Your task to perform on an android device: change the clock display to digital Image 0: 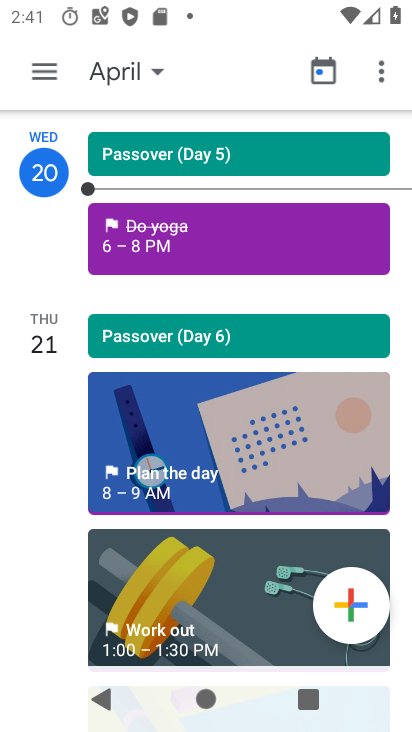
Step 0: press home button
Your task to perform on an android device: change the clock display to digital Image 1: 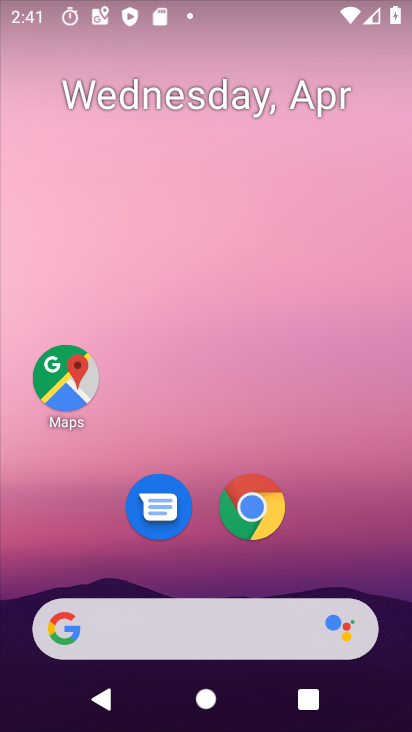
Step 1: drag from (335, 519) to (66, 98)
Your task to perform on an android device: change the clock display to digital Image 2: 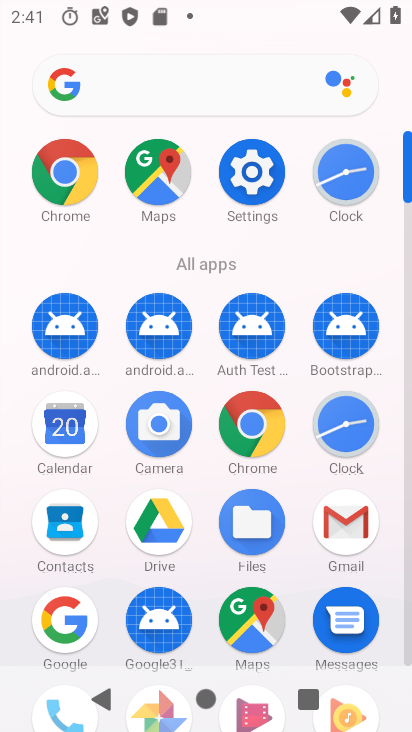
Step 2: click (347, 170)
Your task to perform on an android device: change the clock display to digital Image 3: 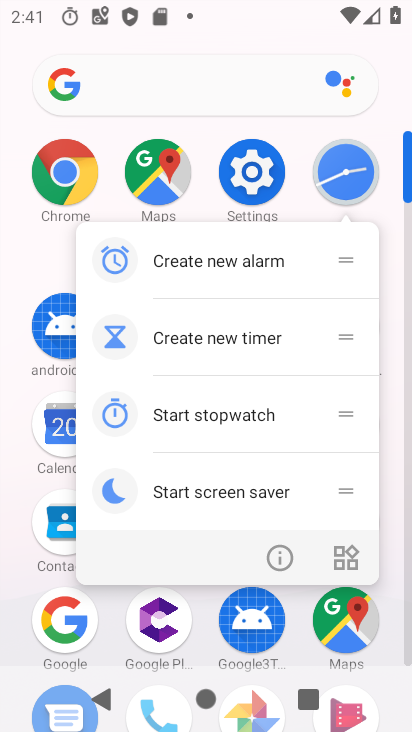
Step 3: click (334, 170)
Your task to perform on an android device: change the clock display to digital Image 4: 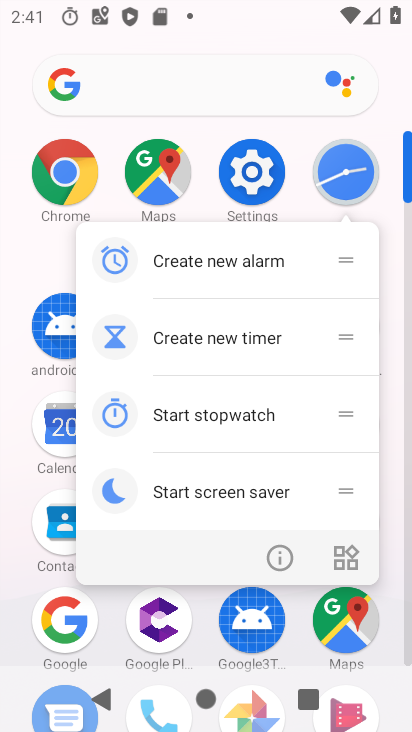
Step 4: click (334, 170)
Your task to perform on an android device: change the clock display to digital Image 5: 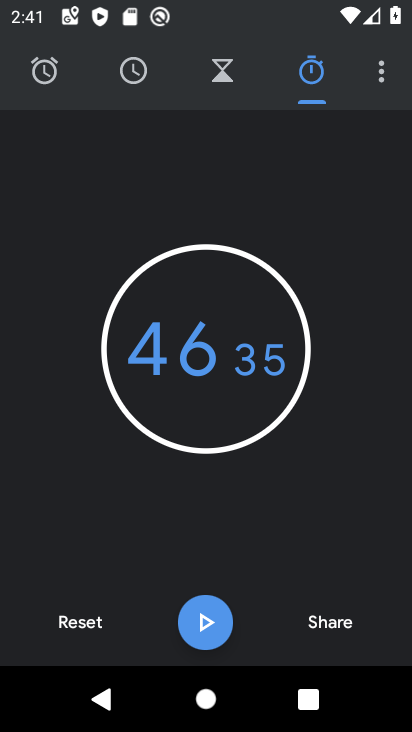
Step 5: click (383, 71)
Your task to perform on an android device: change the clock display to digital Image 6: 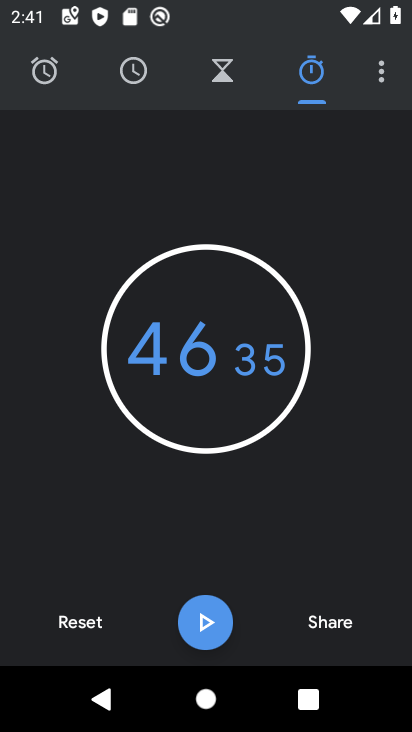
Step 6: drag from (380, 76) to (374, 110)
Your task to perform on an android device: change the clock display to digital Image 7: 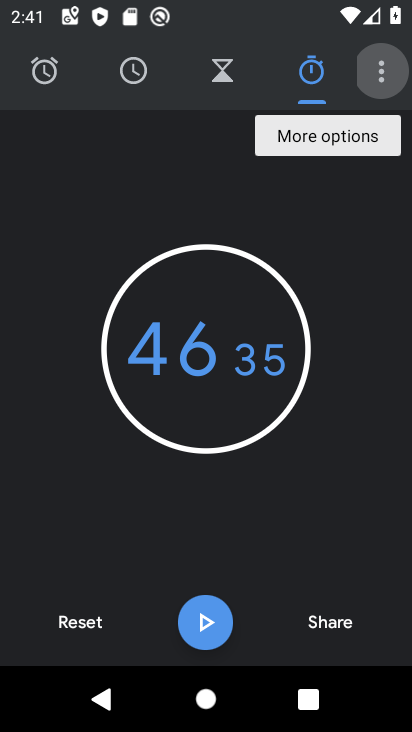
Step 7: click (360, 141)
Your task to perform on an android device: change the clock display to digital Image 8: 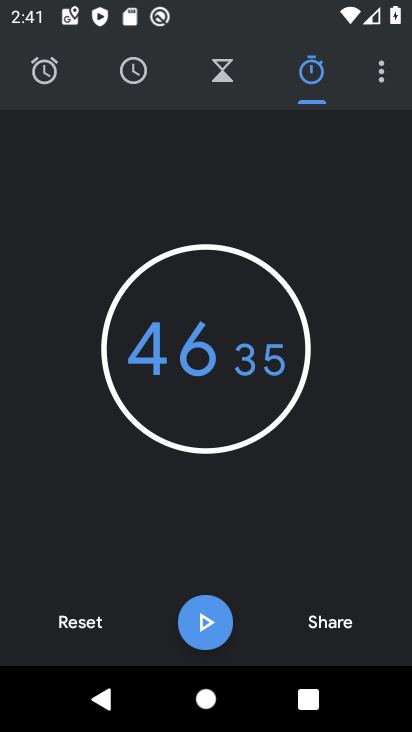
Step 8: click (382, 77)
Your task to perform on an android device: change the clock display to digital Image 9: 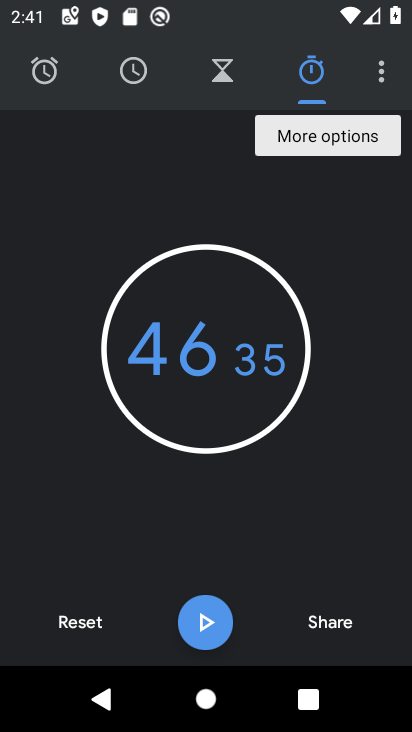
Step 9: click (382, 77)
Your task to perform on an android device: change the clock display to digital Image 10: 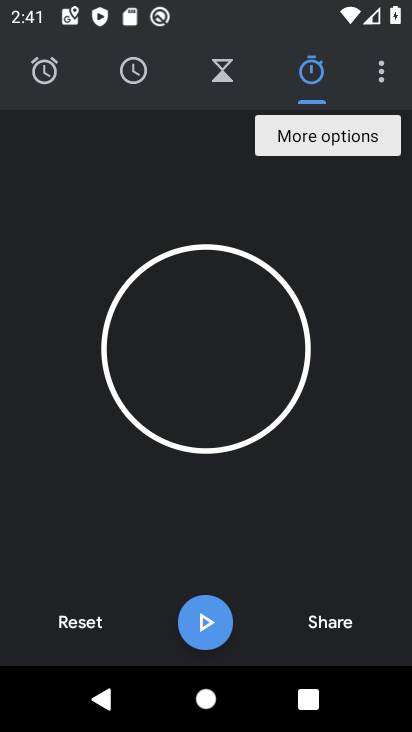
Step 10: click (361, 139)
Your task to perform on an android device: change the clock display to digital Image 11: 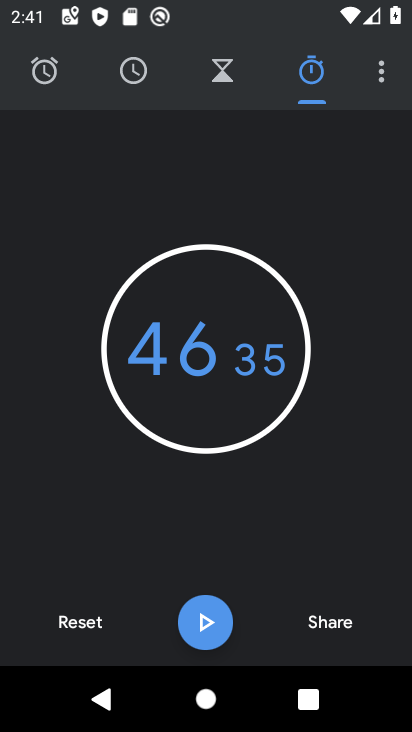
Step 11: click (386, 73)
Your task to perform on an android device: change the clock display to digital Image 12: 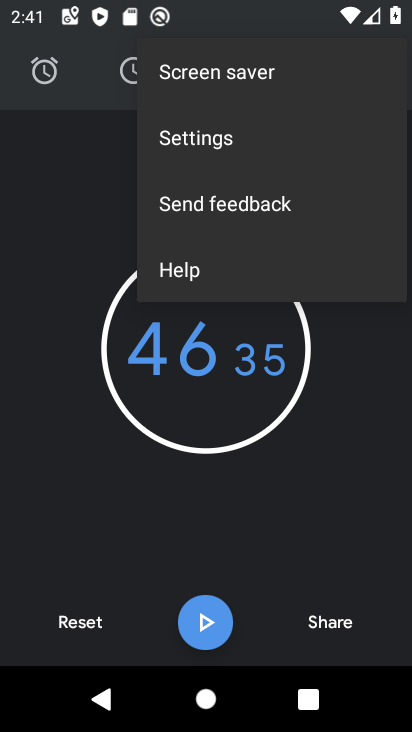
Step 12: click (239, 149)
Your task to perform on an android device: change the clock display to digital Image 13: 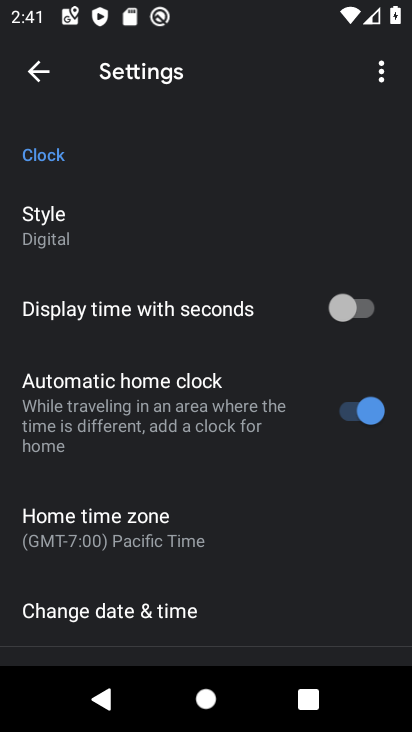
Step 13: click (45, 246)
Your task to perform on an android device: change the clock display to digital Image 14: 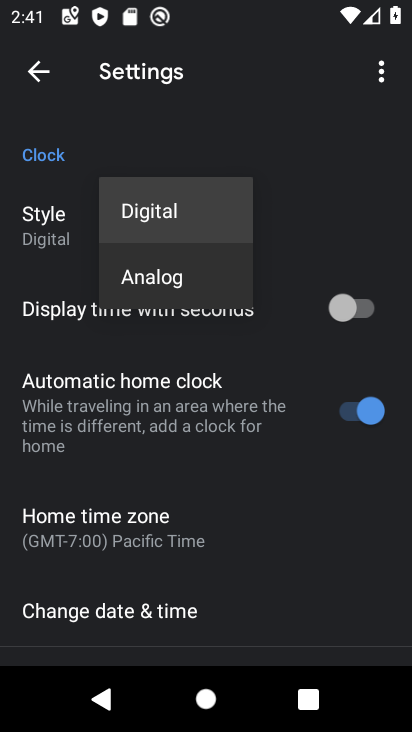
Step 14: task complete